Your task to perform on an android device: Clear the cart on target. Search for usb-c on target, select the first entry, and add it to the cart. Image 0: 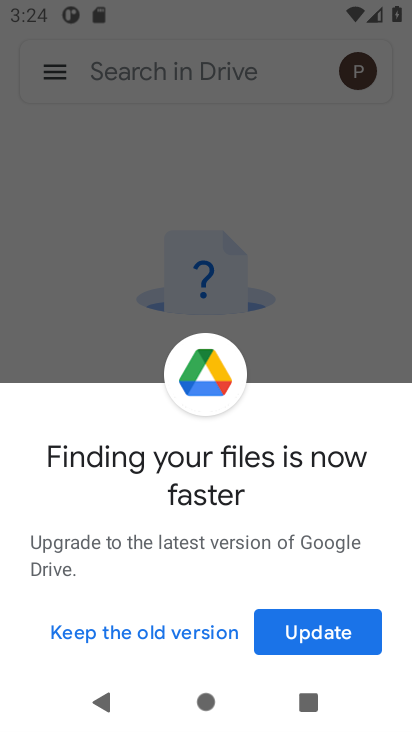
Step 0: press home button
Your task to perform on an android device: Clear the cart on target. Search for usb-c on target, select the first entry, and add it to the cart. Image 1: 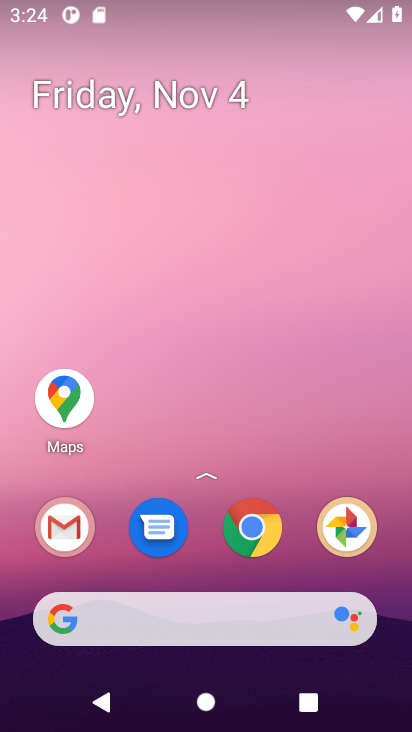
Step 1: click (259, 517)
Your task to perform on an android device: Clear the cart on target. Search for usb-c on target, select the first entry, and add it to the cart. Image 2: 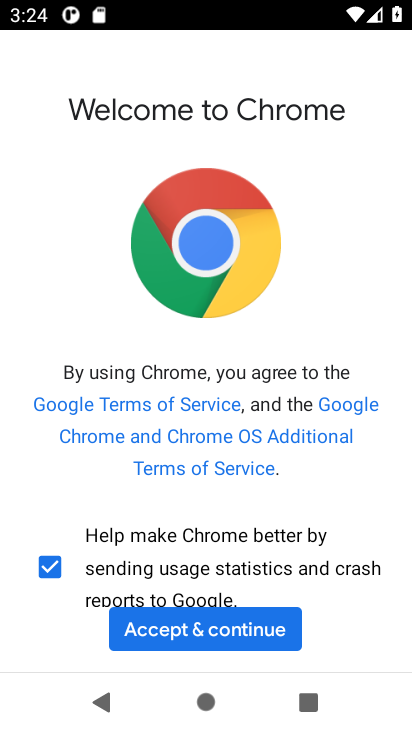
Step 2: click (265, 624)
Your task to perform on an android device: Clear the cart on target. Search for usb-c on target, select the first entry, and add it to the cart. Image 3: 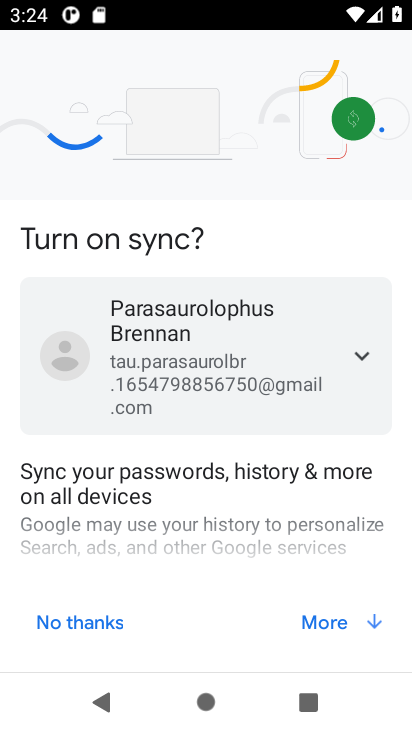
Step 3: click (323, 626)
Your task to perform on an android device: Clear the cart on target. Search for usb-c on target, select the first entry, and add it to the cart. Image 4: 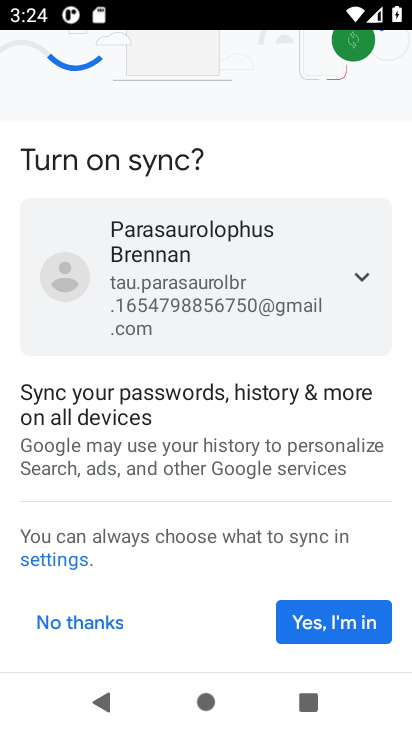
Step 4: click (329, 615)
Your task to perform on an android device: Clear the cart on target. Search for usb-c on target, select the first entry, and add it to the cart. Image 5: 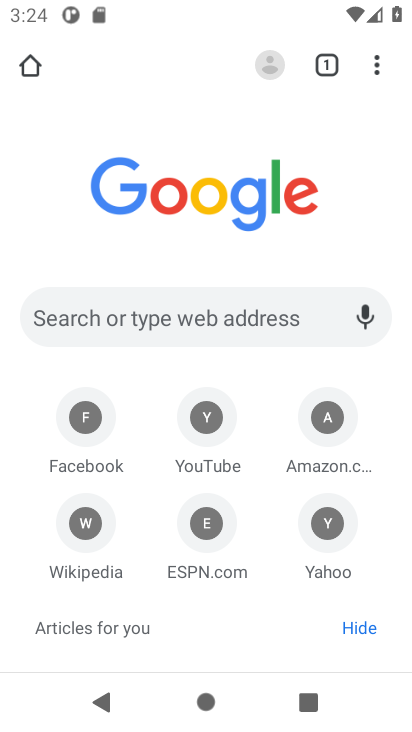
Step 5: click (218, 335)
Your task to perform on an android device: Clear the cart on target. Search for usb-c on target, select the first entry, and add it to the cart. Image 6: 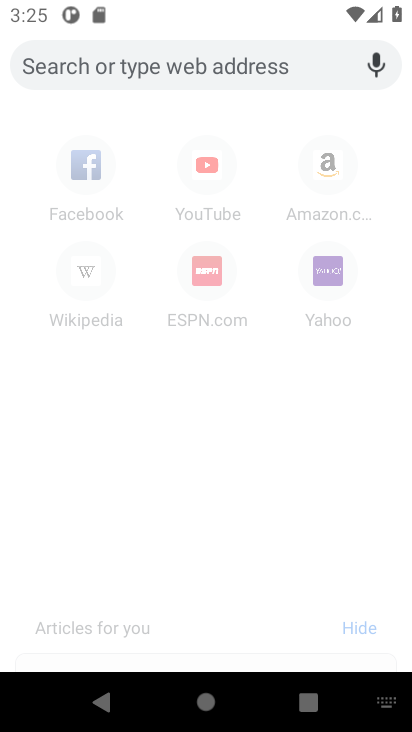
Step 6: type "target"
Your task to perform on an android device: Clear the cart on target. Search for usb-c on target, select the first entry, and add it to the cart. Image 7: 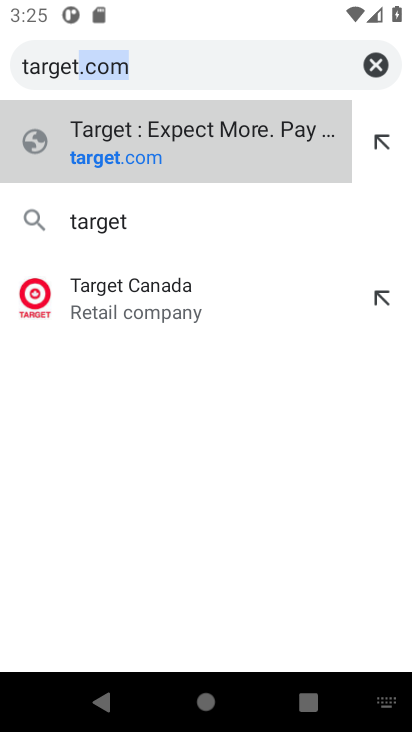
Step 7: click (237, 69)
Your task to perform on an android device: Clear the cart on target. Search for usb-c on target, select the first entry, and add it to the cart. Image 8: 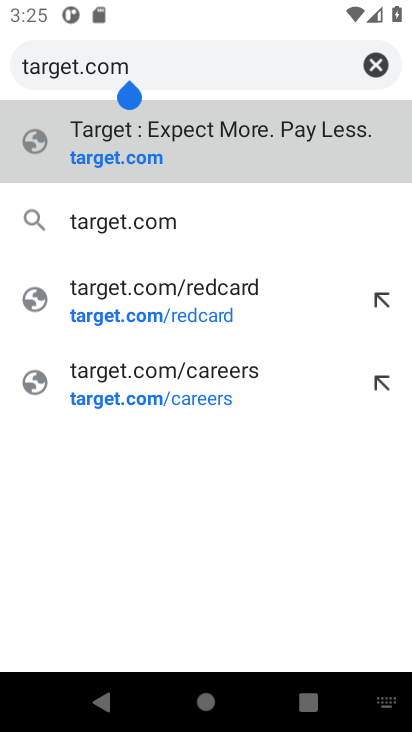
Step 8: click (152, 227)
Your task to perform on an android device: Clear the cart on target. Search for usb-c on target, select the first entry, and add it to the cart. Image 9: 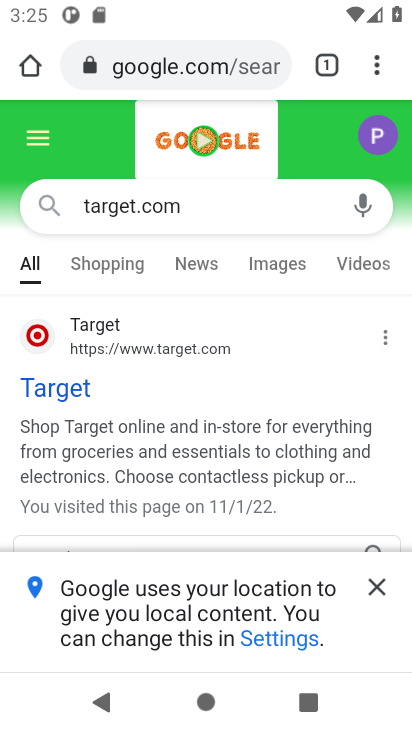
Step 9: click (123, 345)
Your task to perform on an android device: Clear the cart on target. Search for usb-c on target, select the first entry, and add it to the cart. Image 10: 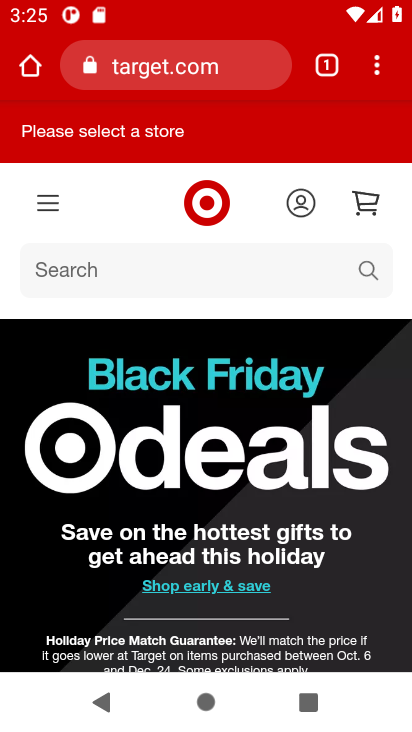
Step 10: click (373, 202)
Your task to perform on an android device: Clear the cart on target. Search for usb-c on target, select the first entry, and add it to the cart. Image 11: 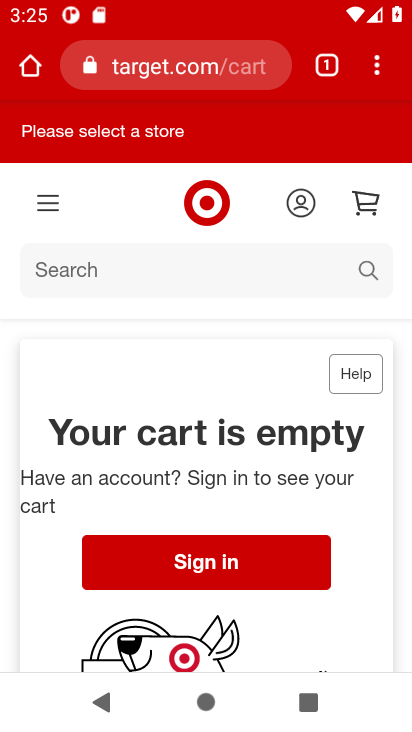
Step 11: click (362, 261)
Your task to perform on an android device: Clear the cart on target. Search for usb-c on target, select the first entry, and add it to the cart. Image 12: 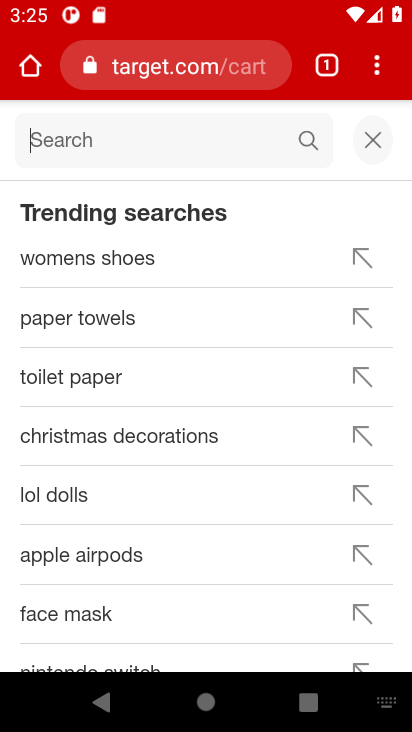
Step 12: type "usb-c"
Your task to perform on an android device: Clear the cart on target. Search for usb-c on target, select the first entry, and add it to the cart. Image 13: 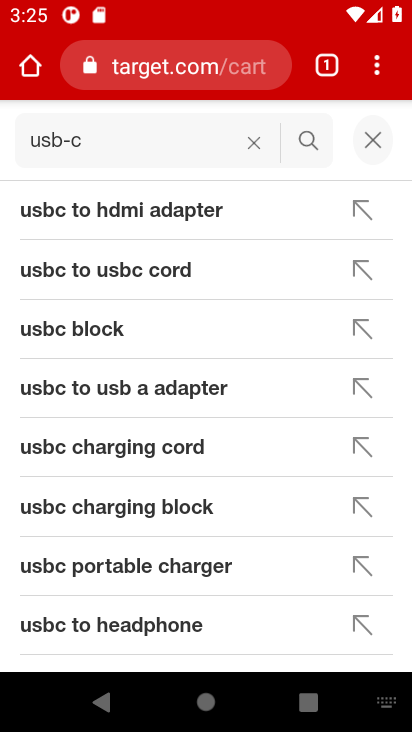
Step 13: click (340, 107)
Your task to perform on an android device: Clear the cart on target. Search for usb-c on target, select the first entry, and add it to the cart. Image 14: 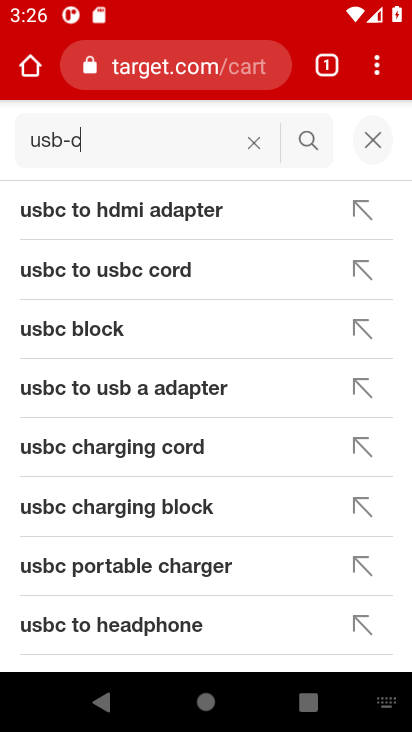
Step 14: click (181, 144)
Your task to perform on an android device: Clear the cart on target. Search for usb-c on target, select the first entry, and add it to the cart. Image 15: 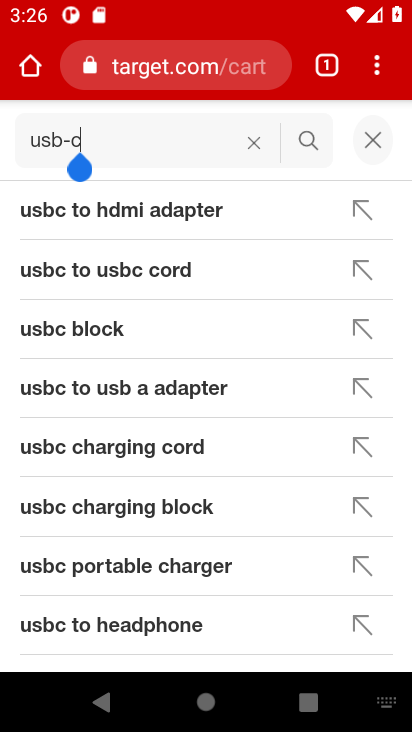
Step 15: task complete